Your task to perform on an android device: refresh tabs in the chrome app Image 0: 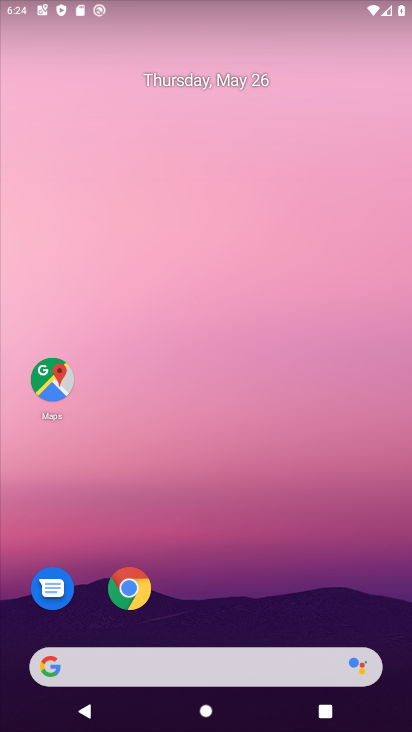
Step 0: drag from (342, 607) to (240, 88)
Your task to perform on an android device: refresh tabs in the chrome app Image 1: 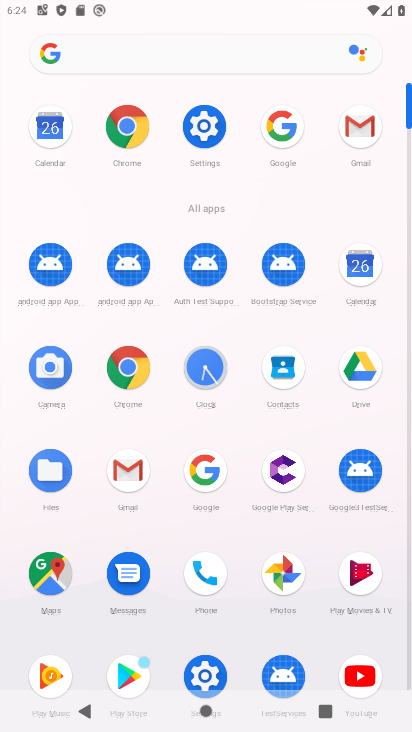
Step 1: click (134, 137)
Your task to perform on an android device: refresh tabs in the chrome app Image 2: 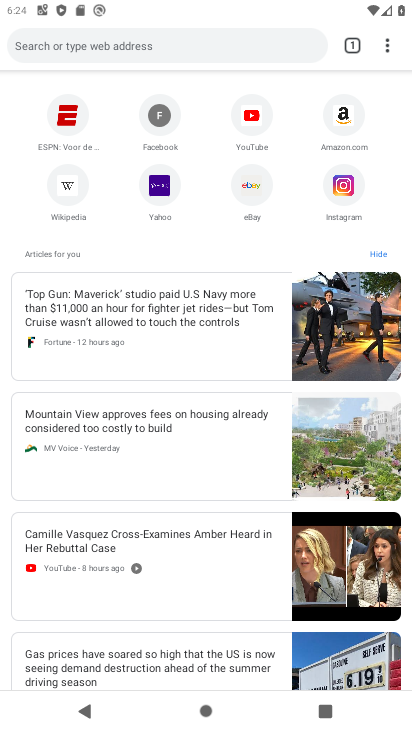
Step 2: click (394, 38)
Your task to perform on an android device: refresh tabs in the chrome app Image 3: 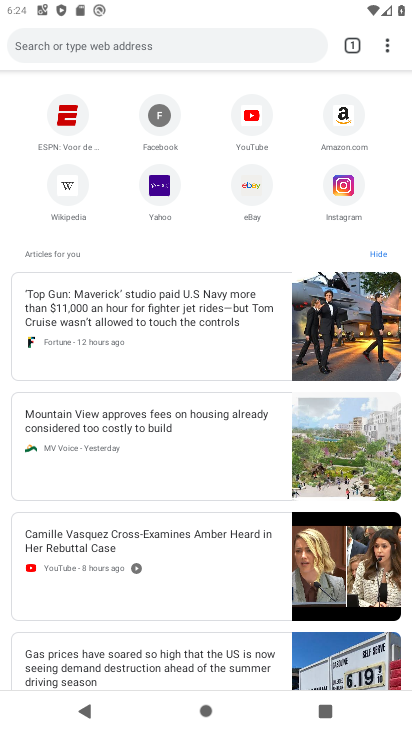
Step 3: click (388, 37)
Your task to perform on an android device: refresh tabs in the chrome app Image 4: 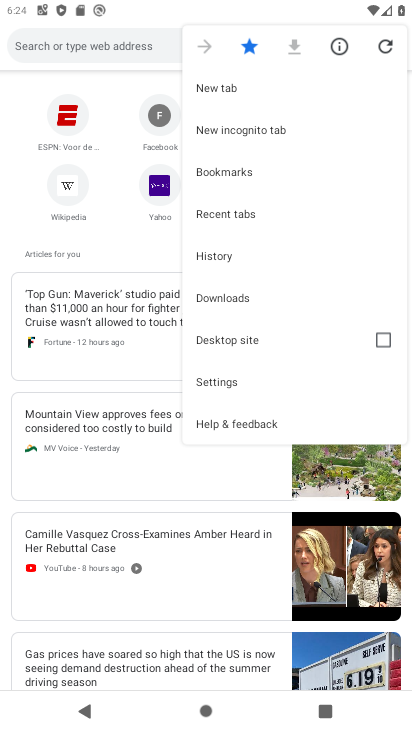
Step 4: click (388, 37)
Your task to perform on an android device: refresh tabs in the chrome app Image 5: 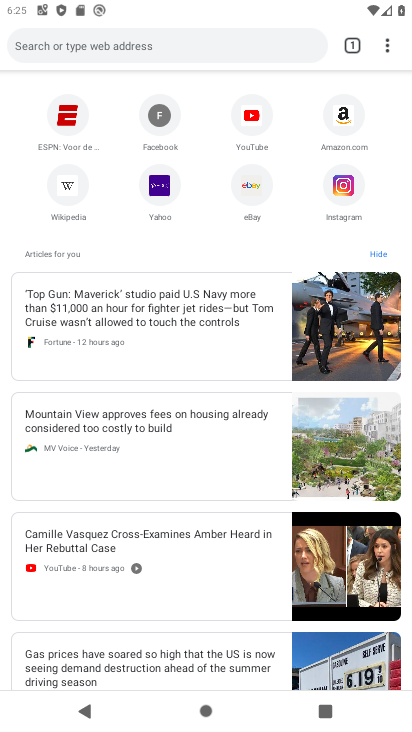
Step 5: task complete